Your task to perform on an android device: What's the weather today? Image 0: 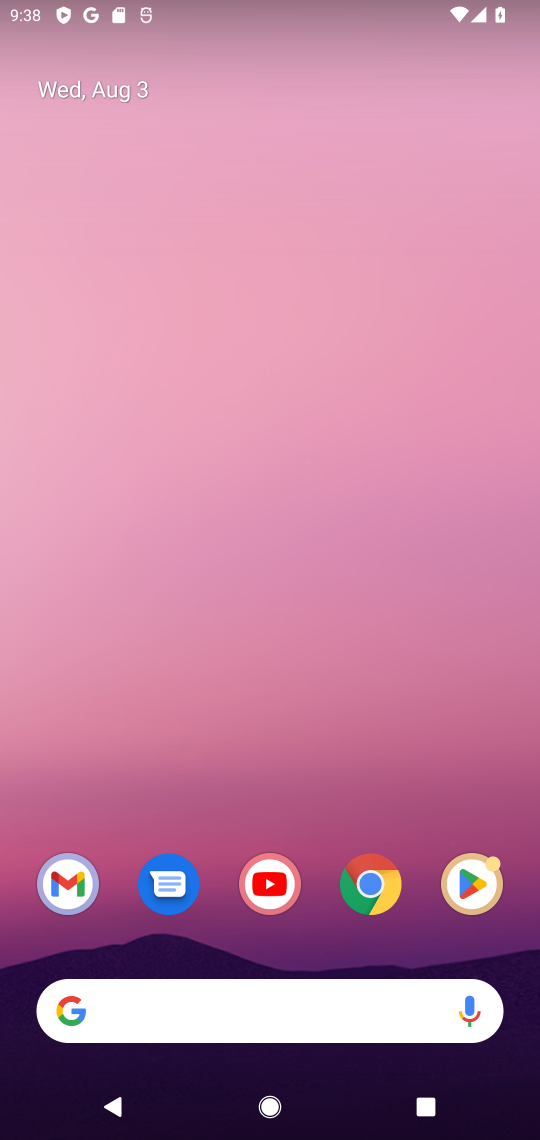
Step 0: press home button
Your task to perform on an android device: What's the weather today? Image 1: 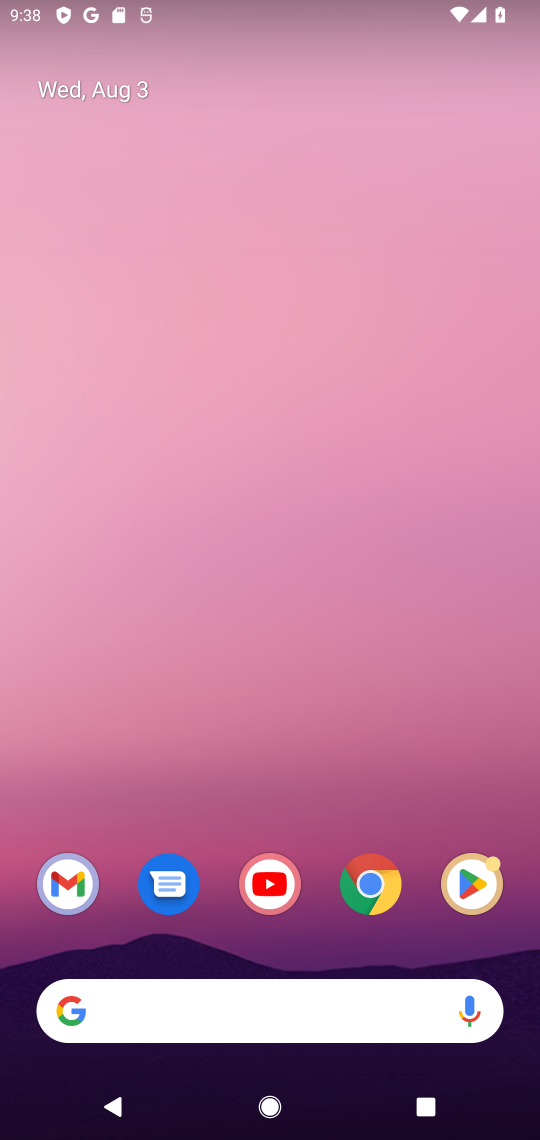
Step 1: click (44, 1012)
Your task to perform on an android device: What's the weather today? Image 2: 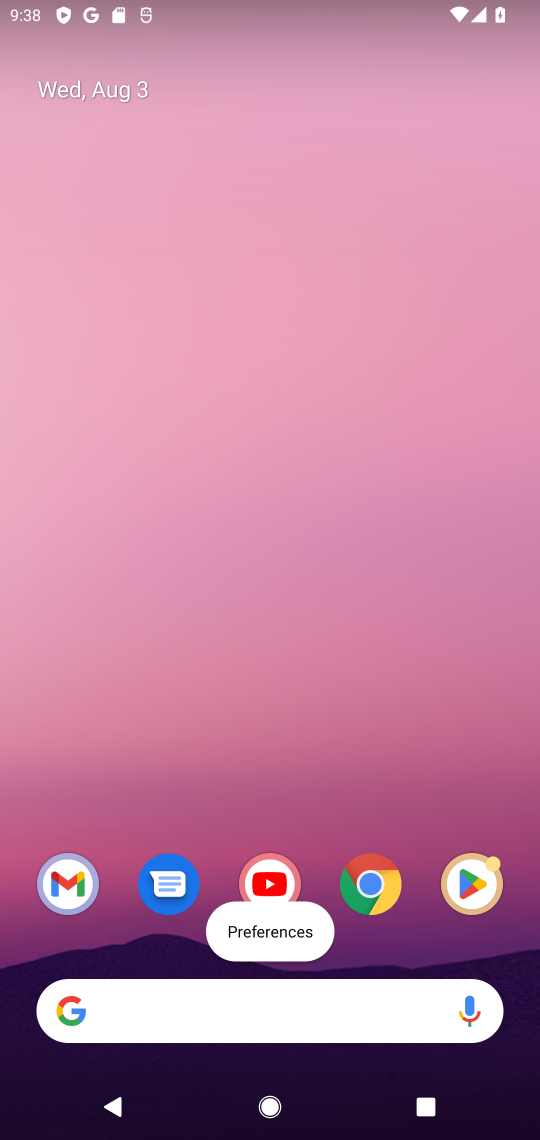
Step 2: click (83, 1011)
Your task to perform on an android device: What's the weather today? Image 3: 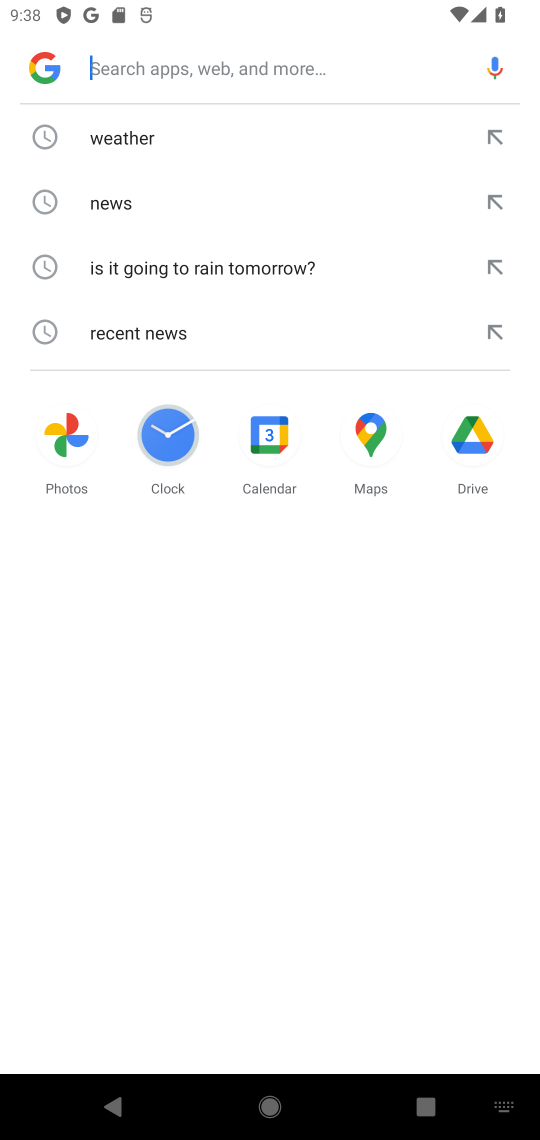
Step 3: type "weather today?"
Your task to perform on an android device: What's the weather today? Image 4: 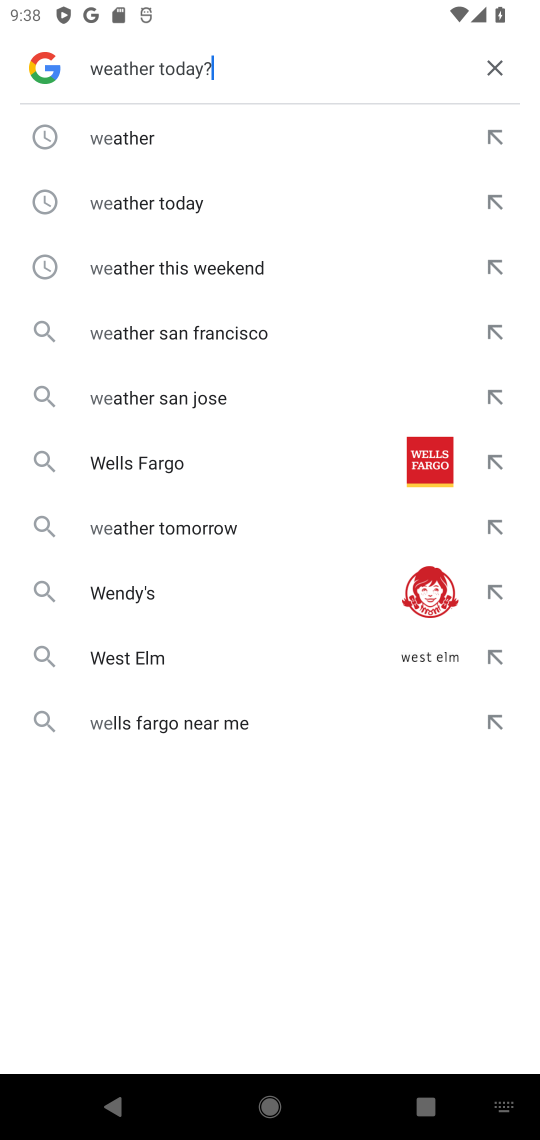
Step 4: press enter
Your task to perform on an android device: What's the weather today? Image 5: 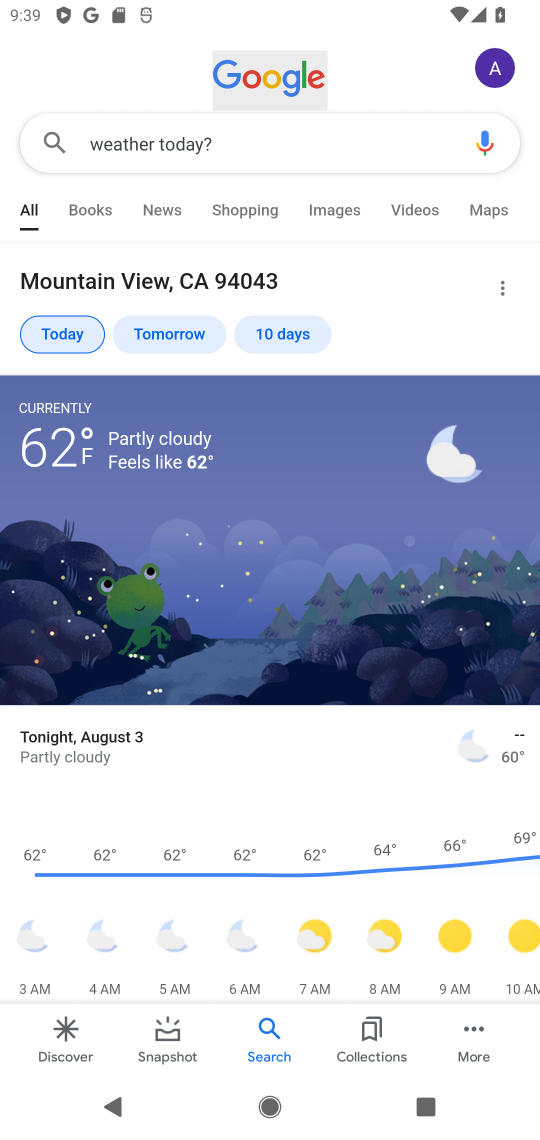
Step 5: task complete